Your task to perform on an android device: open chrome and create a bookmark for the current page Image 0: 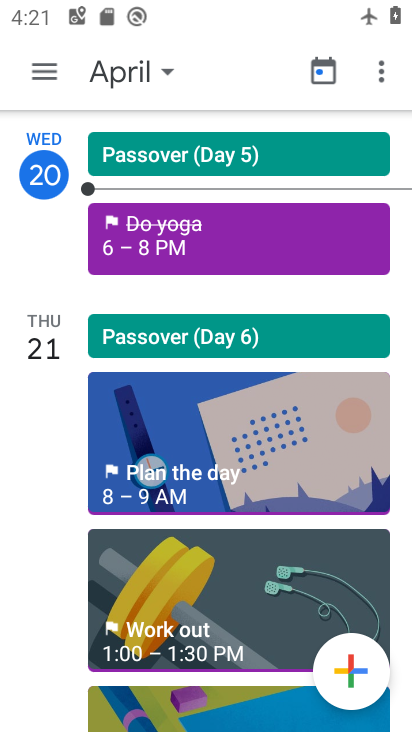
Step 0: press home button
Your task to perform on an android device: open chrome and create a bookmark for the current page Image 1: 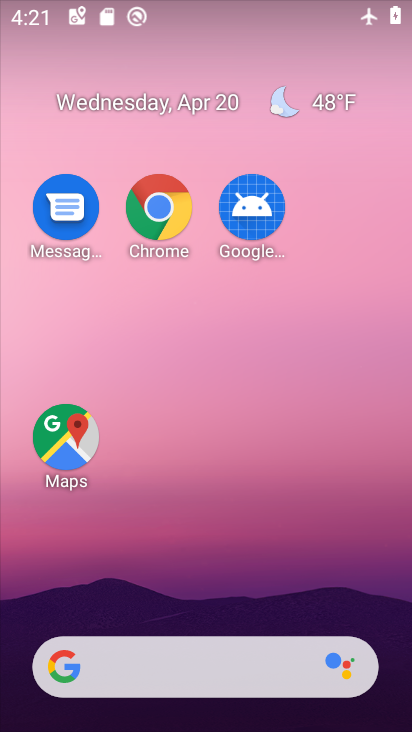
Step 1: drag from (305, 363) to (352, 61)
Your task to perform on an android device: open chrome and create a bookmark for the current page Image 2: 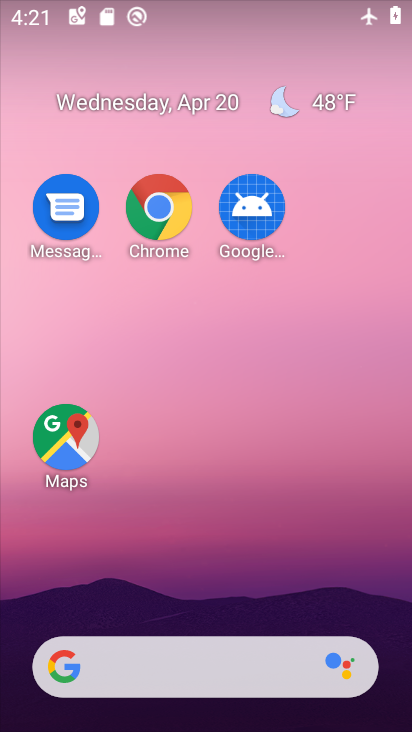
Step 2: drag from (230, 549) to (284, 216)
Your task to perform on an android device: open chrome and create a bookmark for the current page Image 3: 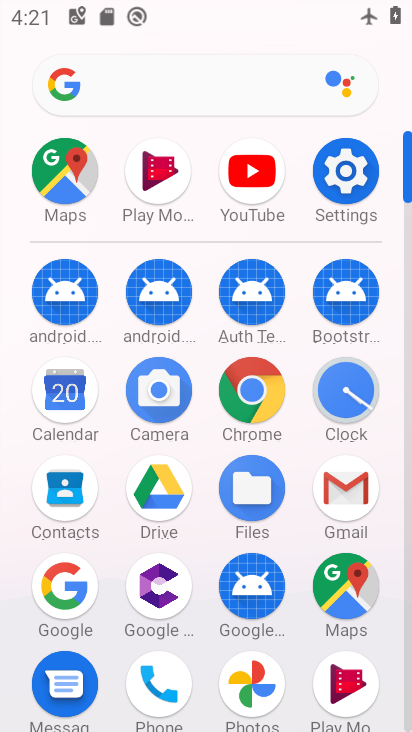
Step 3: click (278, 404)
Your task to perform on an android device: open chrome and create a bookmark for the current page Image 4: 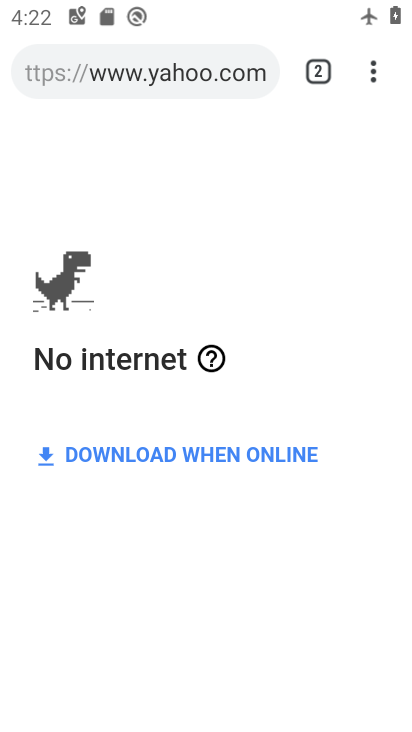
Step 4: click (363, 60)
Your task to perform on an android device: open chrome and create a bookmark for the current page Image 5: 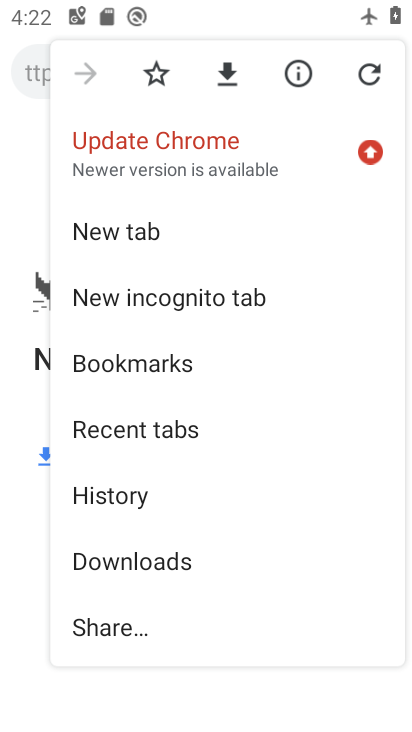
Step 5: task complete